Your task to perform on an android device: Open Youtube and go to the subscriptions tab Image 0: 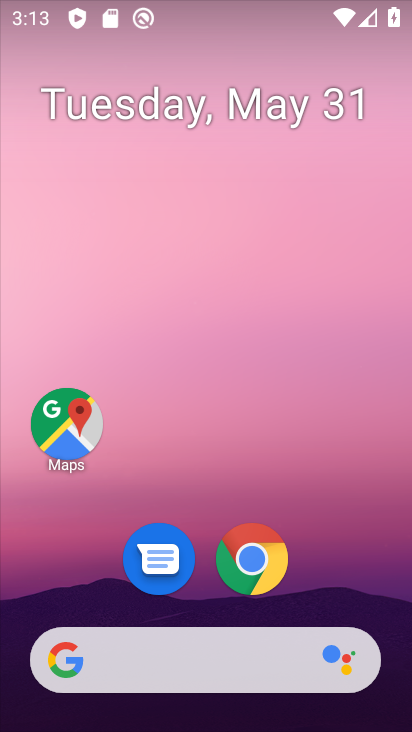
Step 0: drag from (207, 704) to (214, 87)
Your task to perform on an android device: Open Youtube and go to the subscriptions tab Image 1: 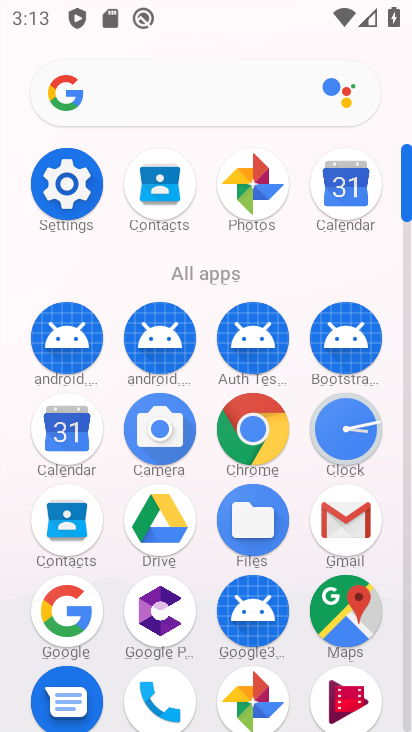
Step 1: drag from (313, 606) to (313, 230)
Your task to perform on an android device: Open Youtube and go to the subscriptions tab Image 2: 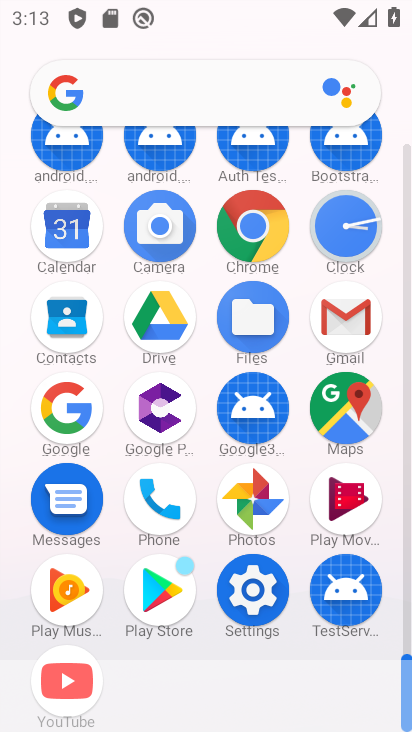
Step 2: click (62, 676)
Your task to perform on an android device: Open Youtube and go to the subscriptions tab Image 3: 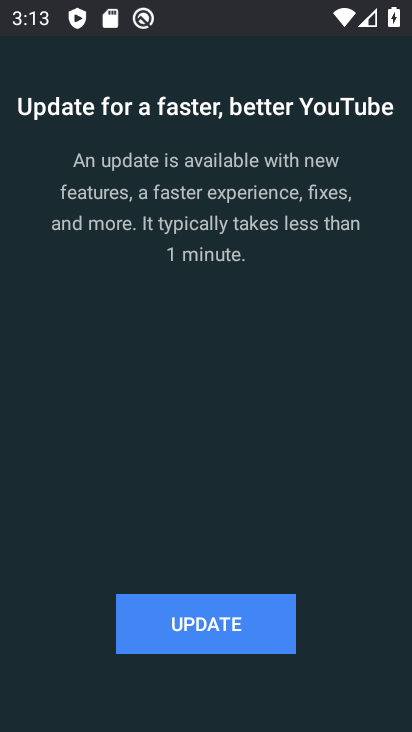
Step 3: task complete